Your task to perform on an android device: check the backup settings in the google photos Image 0: 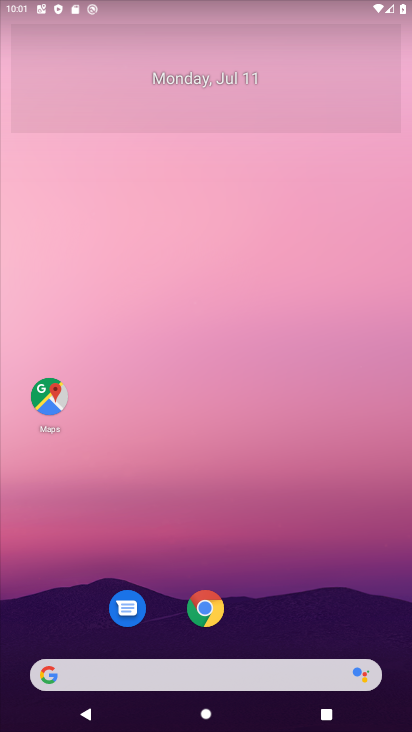
Step 0: drag from (81, 573) to (275, 58)
Your task to perform on an android device: check the backup settings in the google photos Image 1: 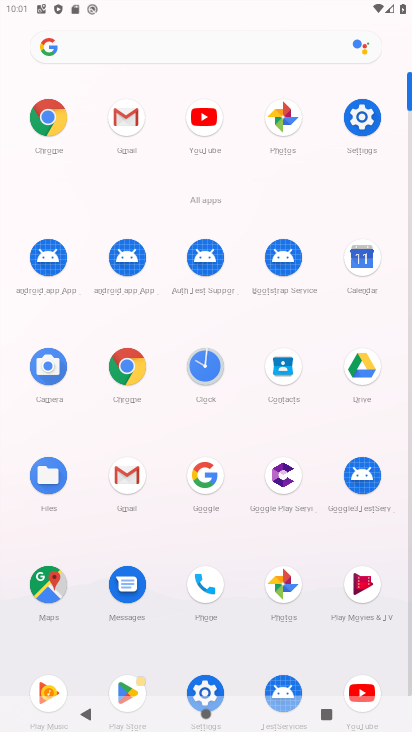
Step 1: click (279, 600)
Your task to perform on an android device: check the backup settings in the google photos Image 2: 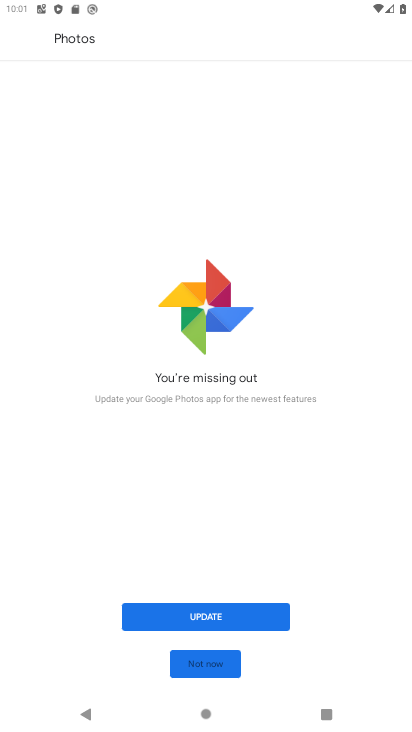
Step 2: click (195, 664)
Your task to perform on an android device: check the backup settings in the google photos Image 3: 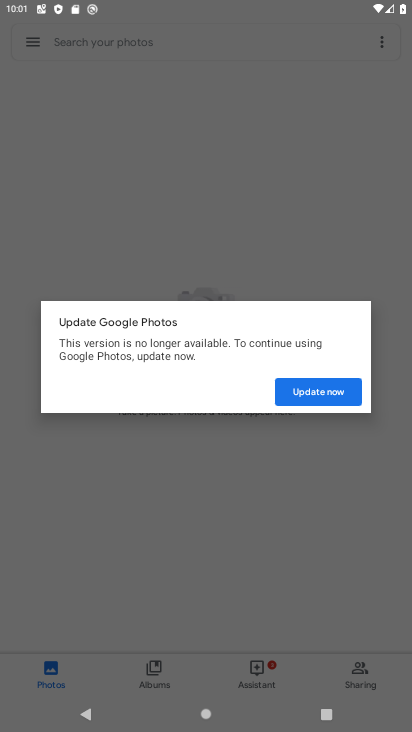
Step 3: click (307, 402)
Your task to perform on an android device: check the backup settings in the google photos Image 4: 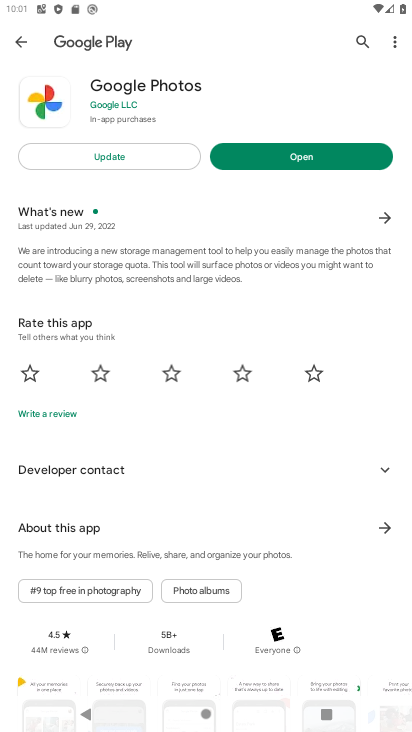
Step 4: click (288, 149)
Your task to perform on an android device: check the backup settings in the google photos Image 5: 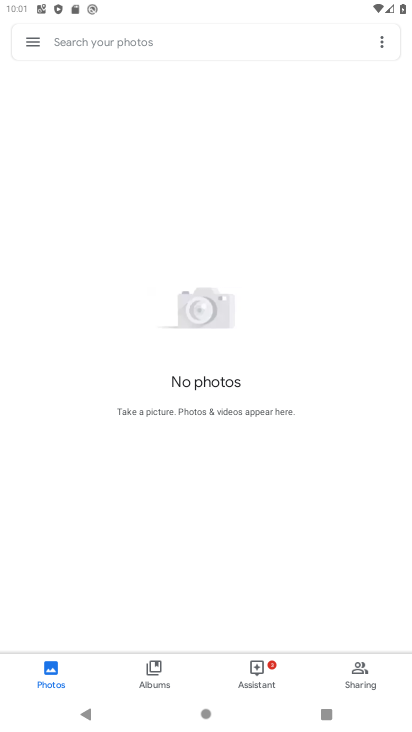
Step 5: click (24, 48)
Your task to perform on an android device: check the backup settings in the google photos Image 6: 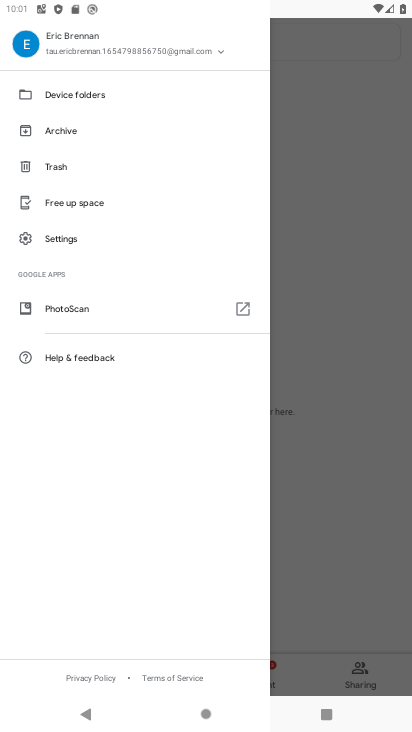
Step 6: click (60, 223)
Your task to perform on an android device: check the backup settings in the google photos Image 7: 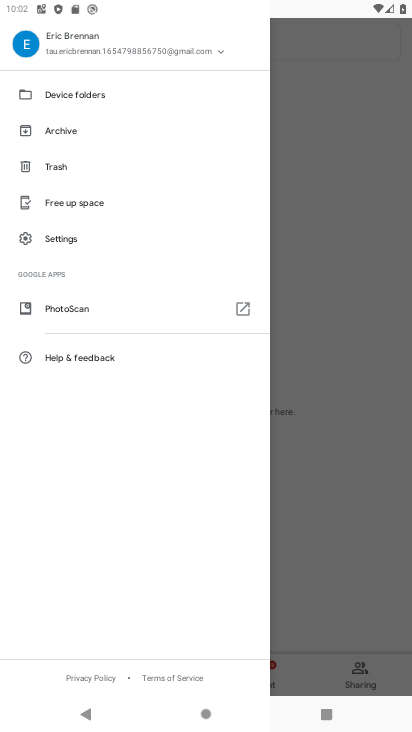
Step 7: click (57, 240)
Your task to perform on an android device: check the backup settings in the google photos Image 8: 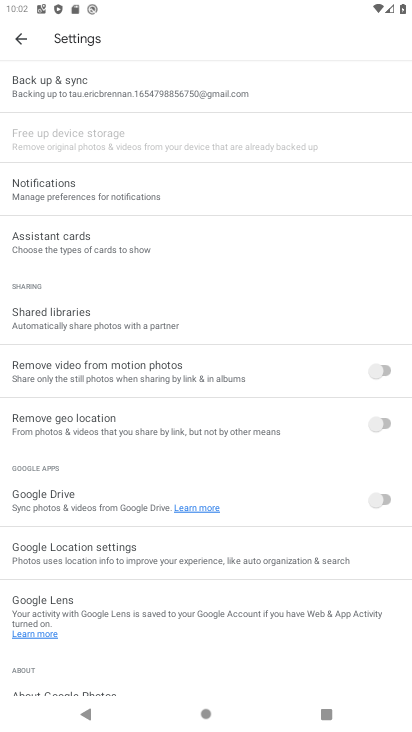
Step 8: click (162, 90)
Your task to perform on an android device: check the backup settings in the google photos Image 9: 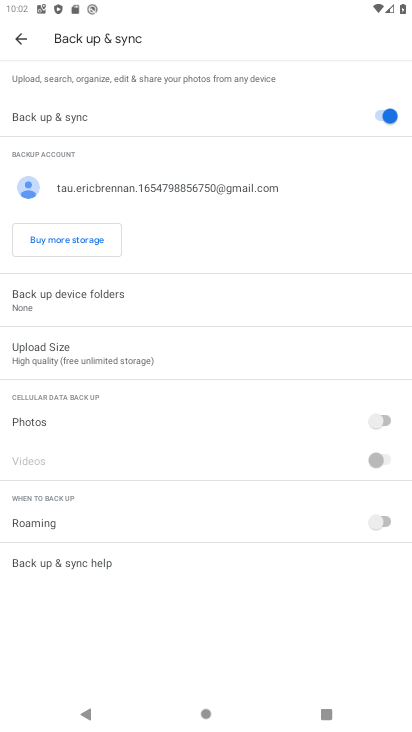
Step 9: task complete